Your task to perform on an android device: toggle sleep mode Image 0: 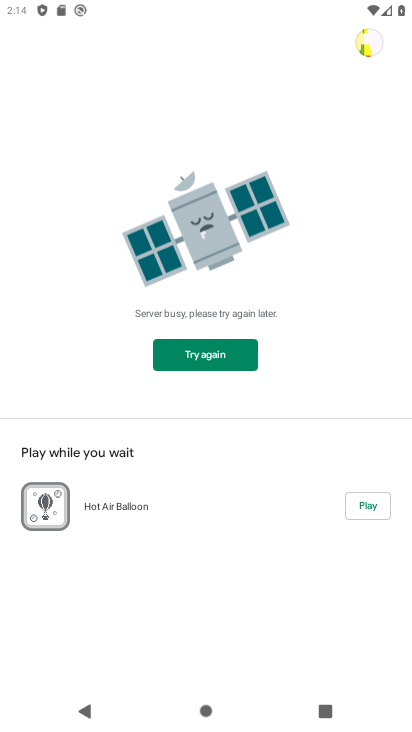
Step 0: press home button
Your task to perform on an android device: toggle sleep mode Image 1: 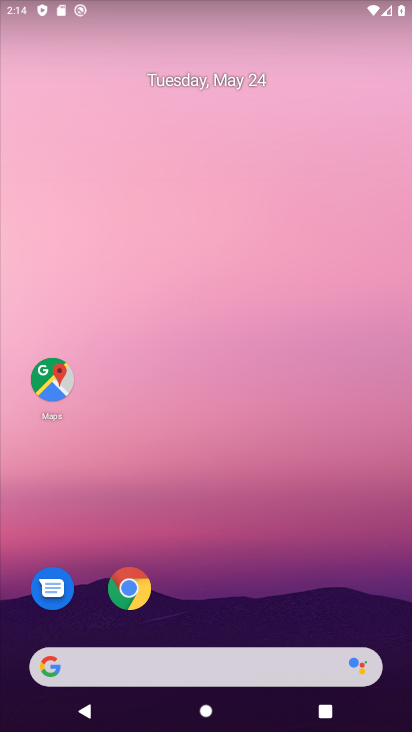
Step 1: drag from (214, 560) to (248, 32)
Your task to perform on an android device: toggle sleep mode Image 2: 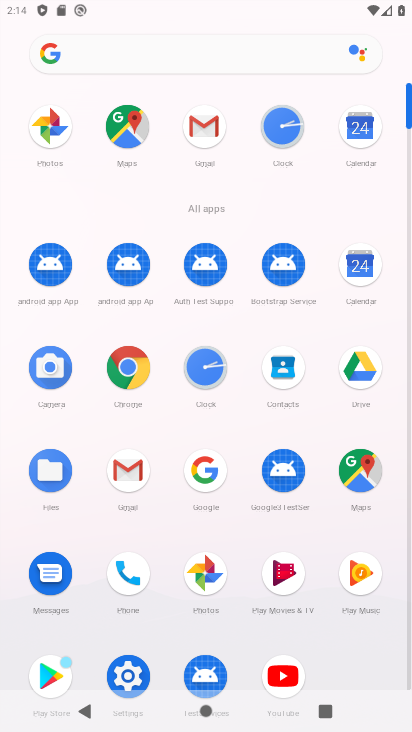
Step 2: click (137, 659)
Your task to perform on an android device: toggle sleep mode Image 3: 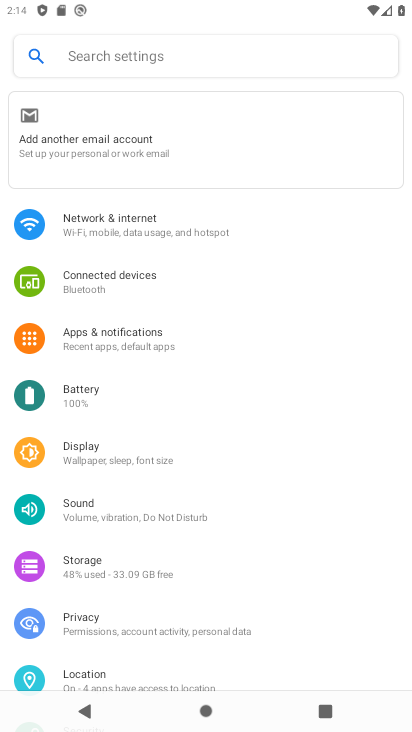
Step 3: click (156, 458)
Your task to perform on an android device: toggle sleep mode Image 4: 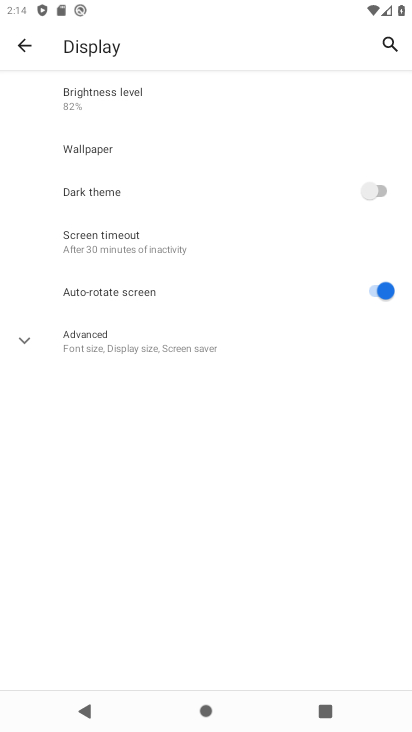
Step 4: click (19, 333)
Your task to perform on an android device: toggle sleep mode Image 5: 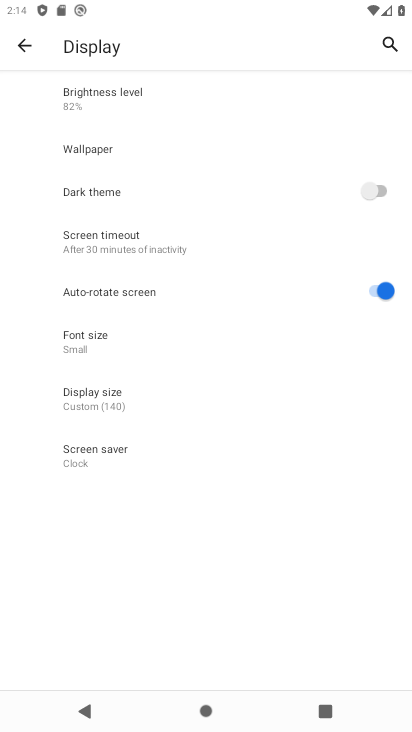
Step 5: click (92, 396)
Your task to perform on an android device: toggle sleep mode Image 6: 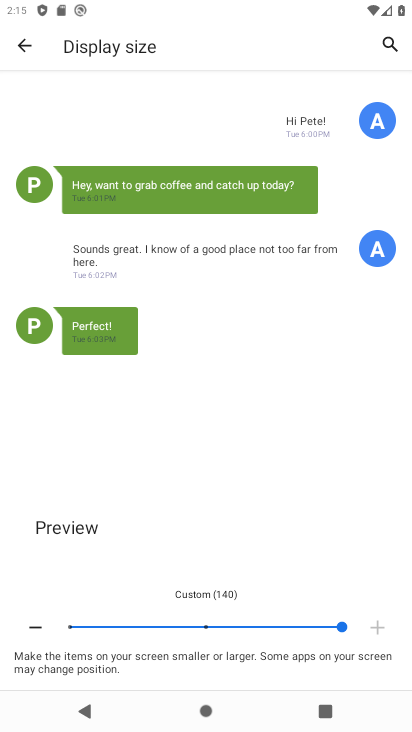
Step 6: click (38, 622)
Your task to perform on an android device: toggle sleep mode Image 7: 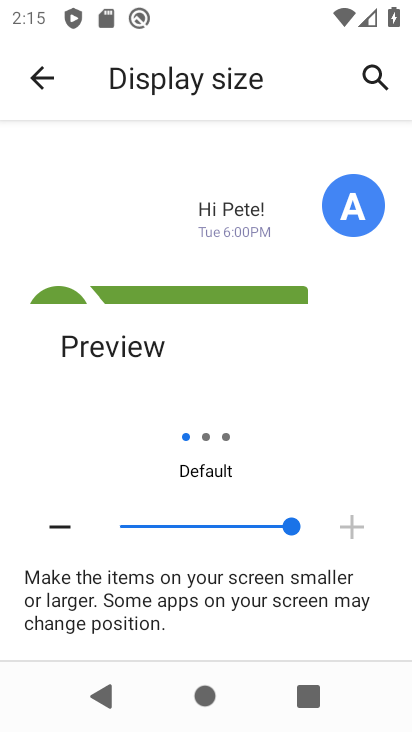
Step 7: click (59, 525)
Your task to perform on an android device: toggle sleep mode Image 8: 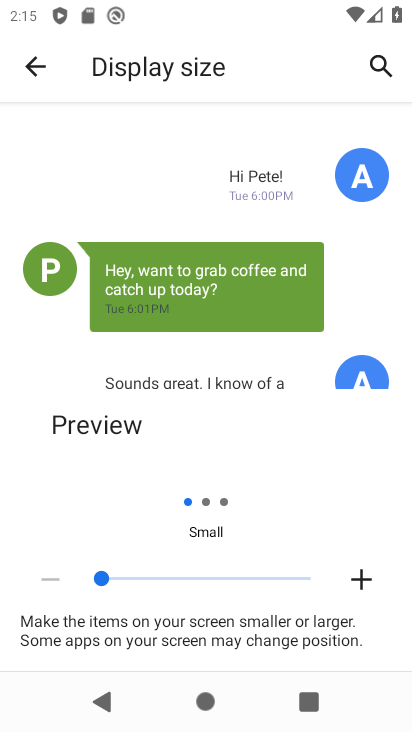
Step 8: click (41, 58)
Your task to perform on an android device: toggle sleep mode Image 9: 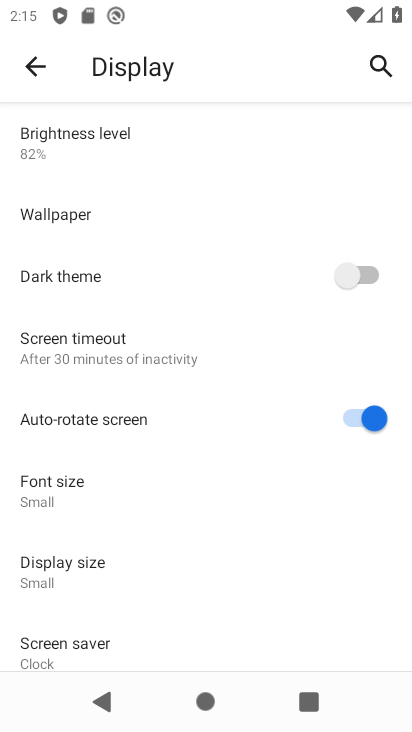
Step 9: click (92, 490)
Your task to perform on an android device: toggle sleep mode Image 10: 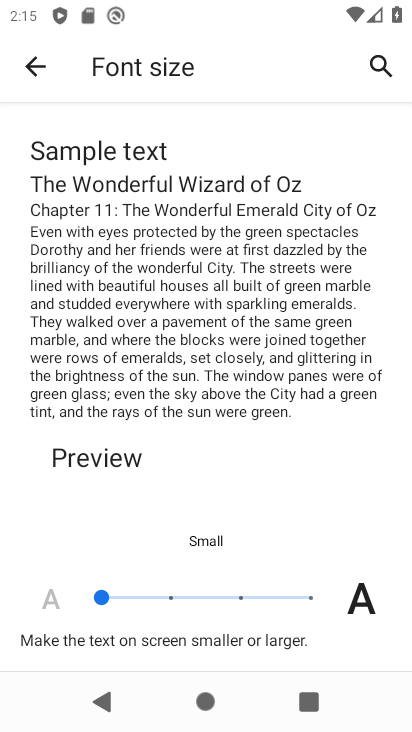
Step 10: click (172, 594)
Your task to perform on an android device: toggle sleep mode Image 11: 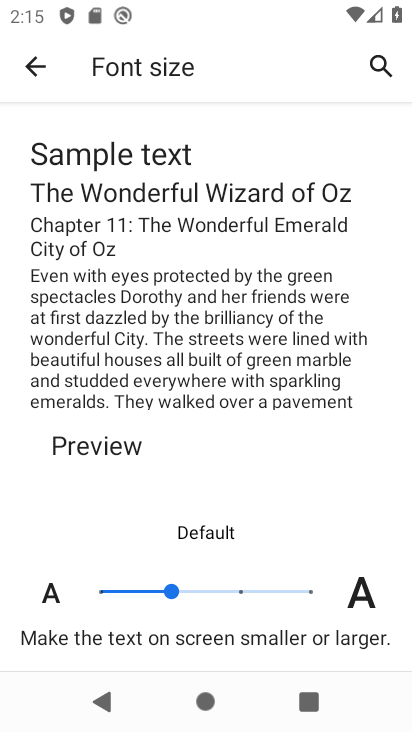
Step 11: click (35, 67)
Your task to perform on an android device: toggle sleep mode Image 12: 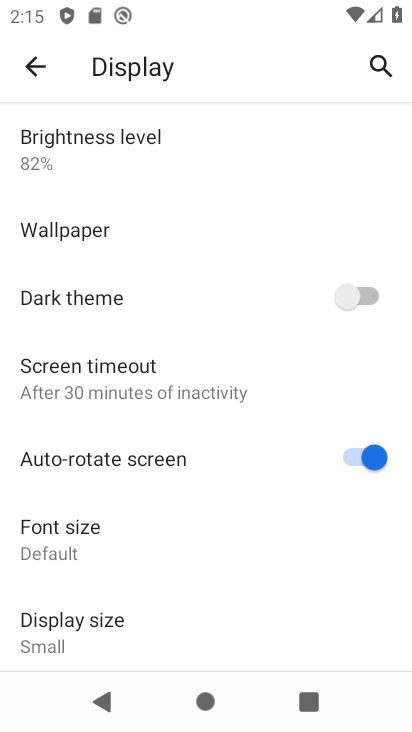
Step 12: click (35, 65)
Your task to perform on an android device: toggle sleep mode Image 13: 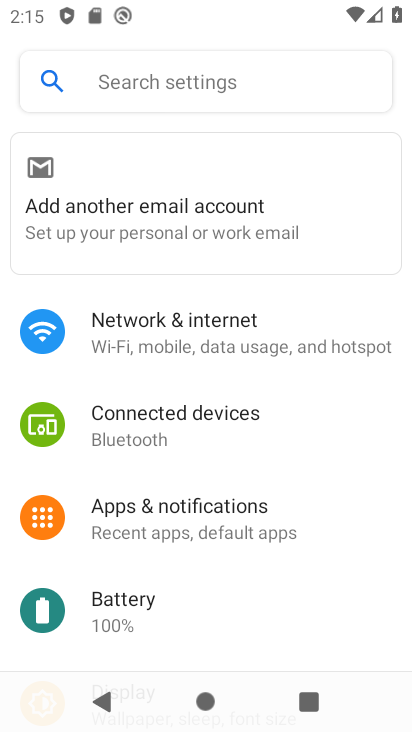
Step 13: drag from (203, 549) to (220, 150)
Your task to perform on an android device: toggle sleep mode Image 14: 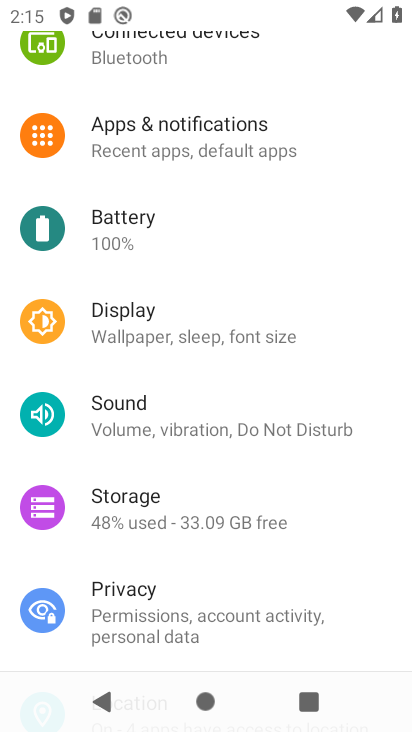
Step 14: click (205, 318)
Your task to perform on an android device: toggle sleep mode Image 15: 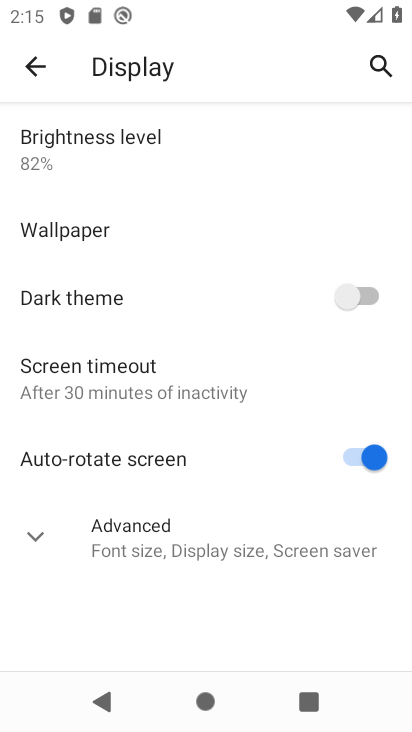
Step 15: click (34, 528)
Your task to perform on an android device: toggle sleep mode Image 16: 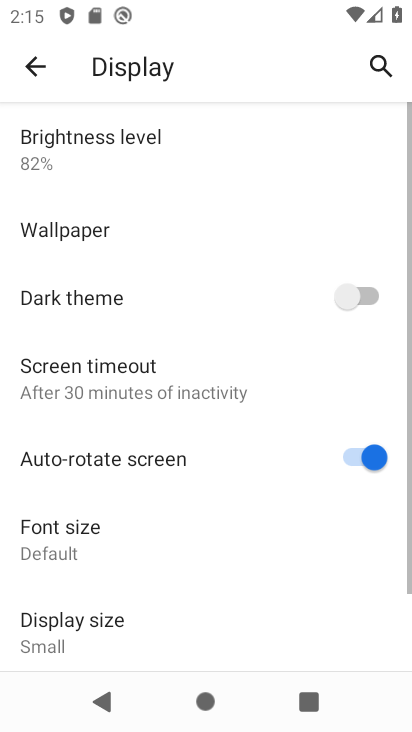
Step 16: task complete